Your task to perform on an android device: Go to internet settings Image 0: 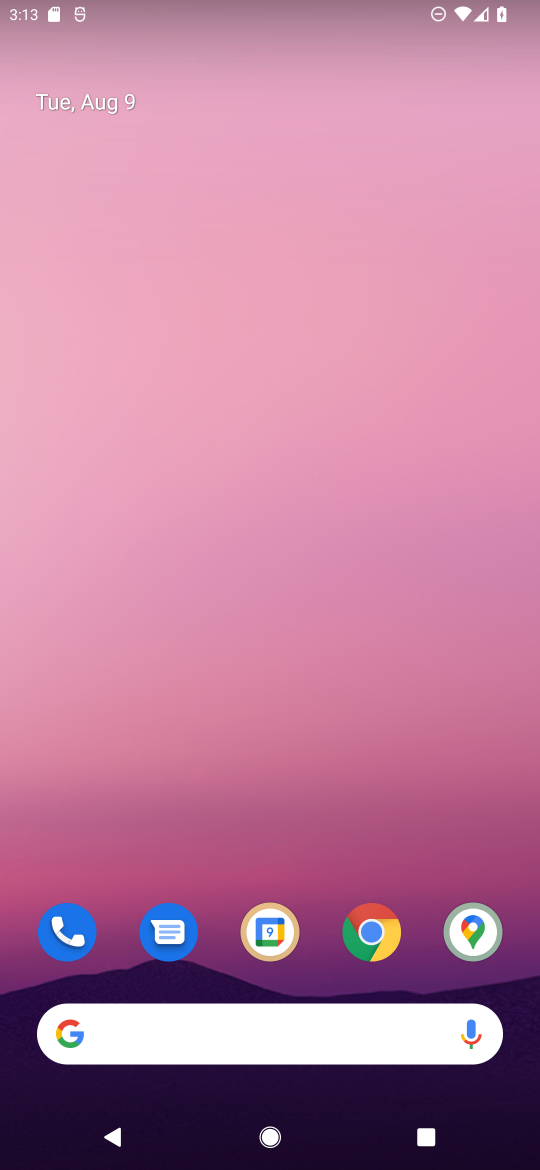
Step 0: drag from (39, 1125) to (149, 821)
Your task to perform on an android device: Go to internet settings Image 1: 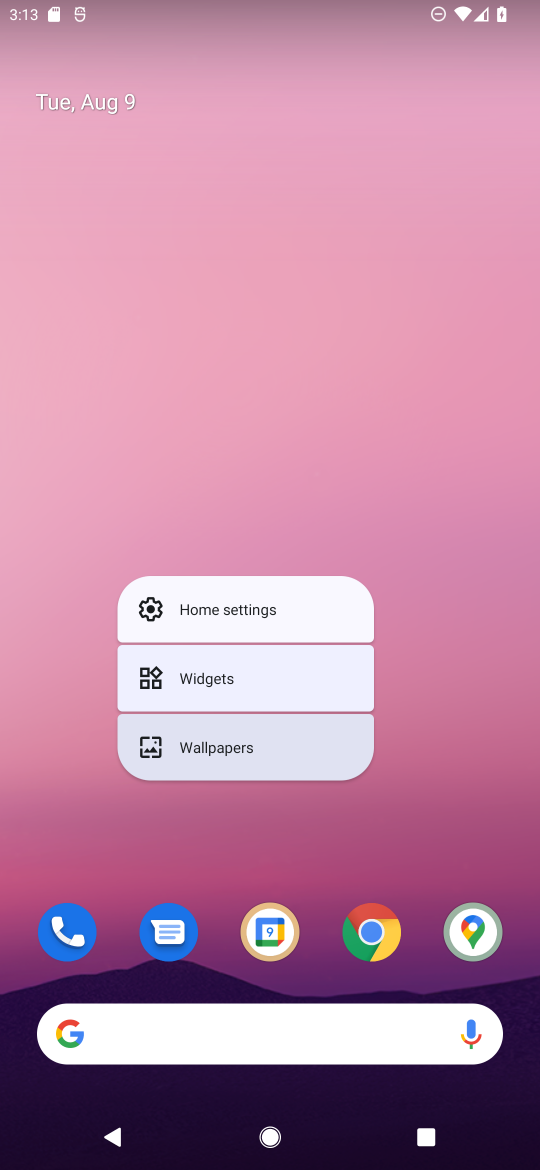
Step 1: task complete